Your task to perform on an android device: Open the phone app and click the voicemail tab. Image 0: 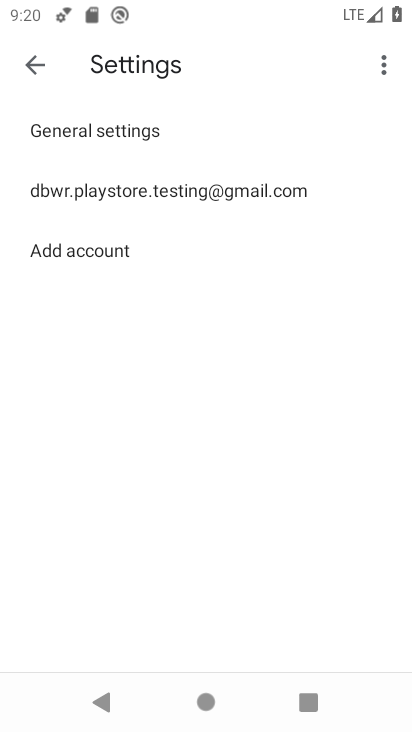
Step 0: press home button
Your task to perform on an android device: Open the phone app and click the voicemail tab. Image 1: 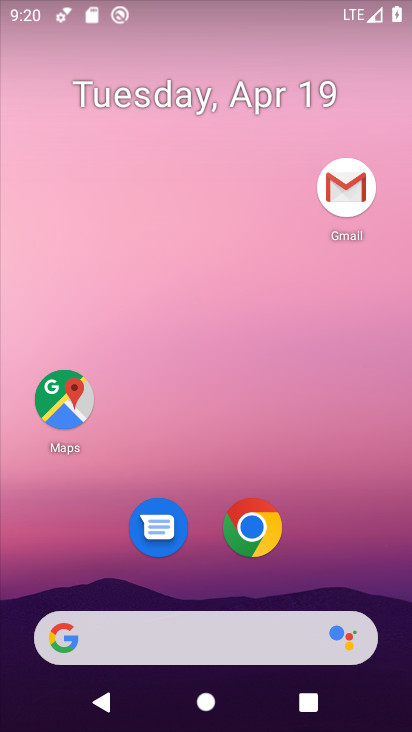
Step 1: drag from (331, 546) to (311, 85)
Your task to perform on an android device: Open the phone app and click the voicemail tab. Image 2: 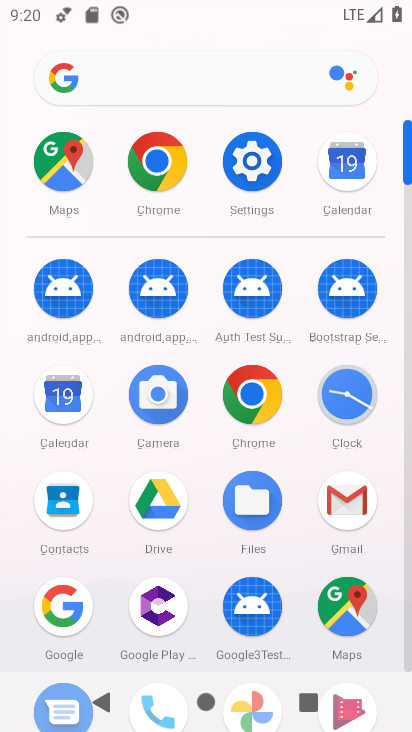
Step 2: drag from (204, 566) to (228, 268)
Your task to perform on an android device: Open the phone app and click the voicemail tab. Image 3: 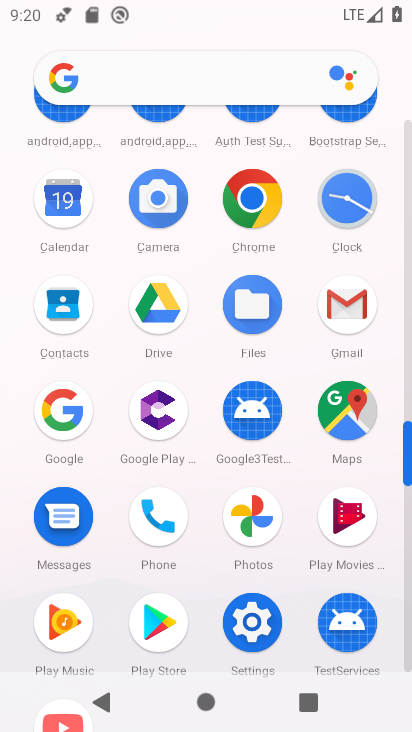
Step 3: click (163, 528)
Your task to perform on an android device: Open the phone app and click the voicemail tab. Image 4: 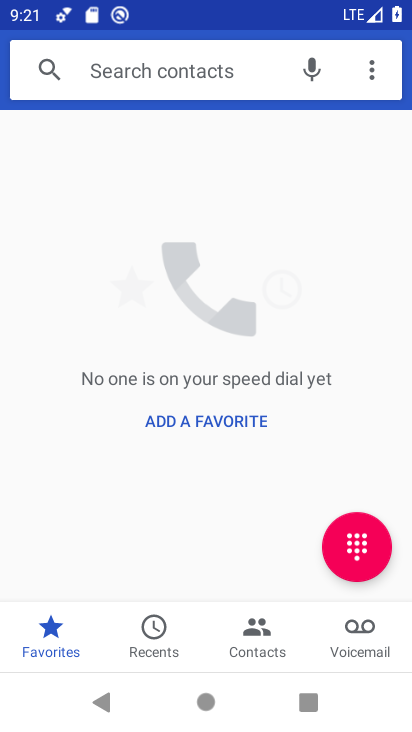
Step 4: click (380, 648)
Your task to perform on an android device: Open the phone app and click the voicemail tab. Image 5: 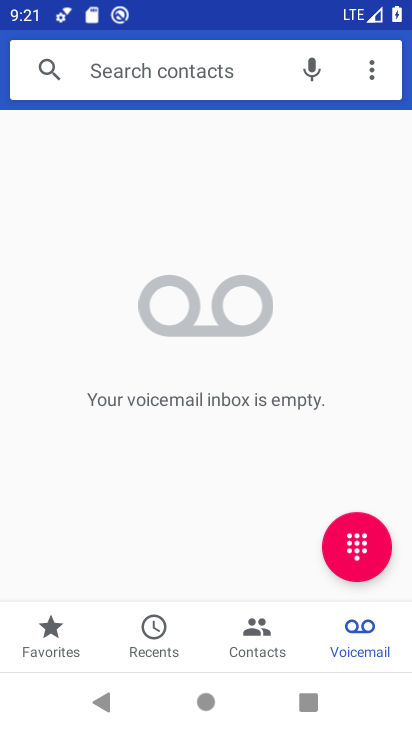
Step 5: task complete